Your task to perform on an android device: check storage Image 0: 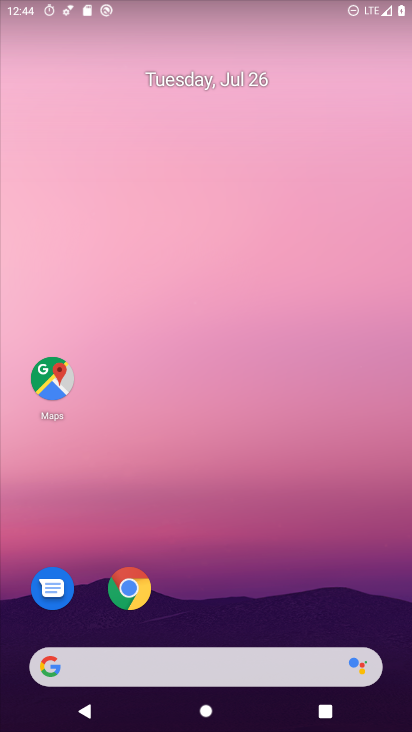
Step 0: drag from (229, 174) to (242, 72)
Your task to perform on an android device: check storage Image 1: 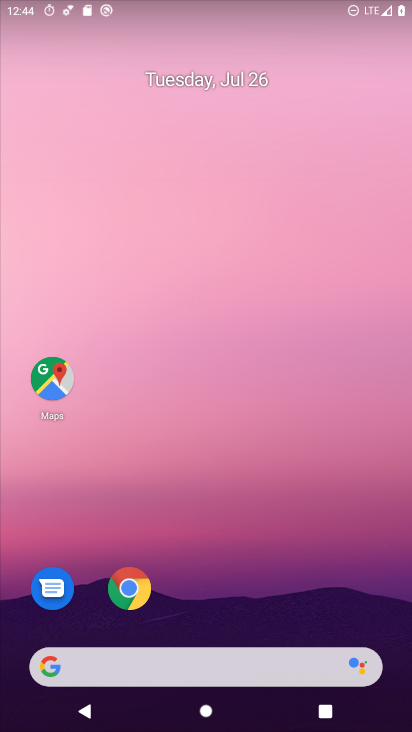
Step 1: drag from (230, 596) to (248, 136)
Your task to perform on an android device: check storage Image 2: 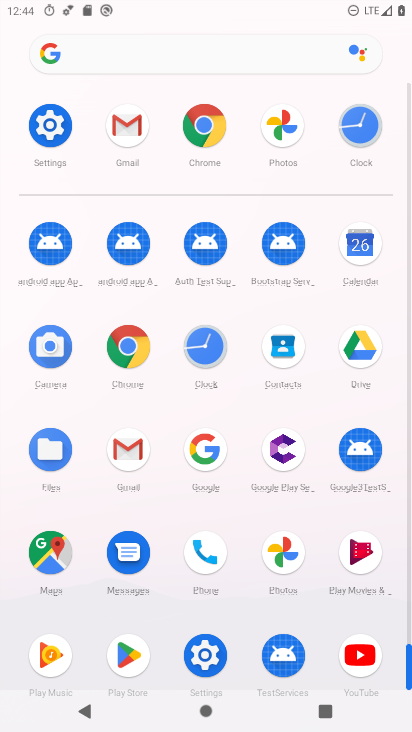
Step 2: click (206, 658)
Your task to perform on an android device: check storage Image 3: 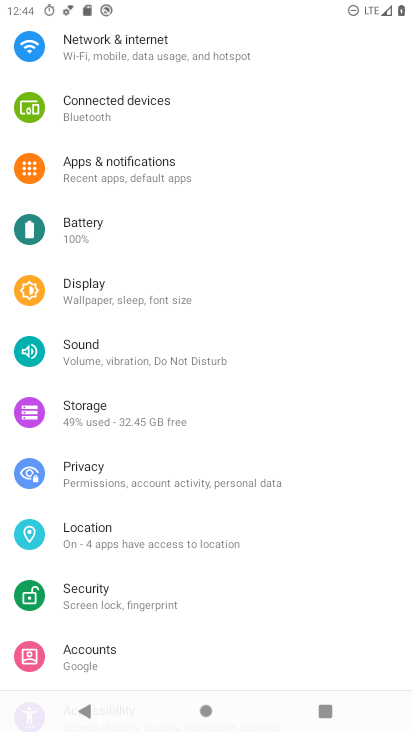
Step 3: click (148, 416)
Your task to perform on an android device: check storage Image 4: 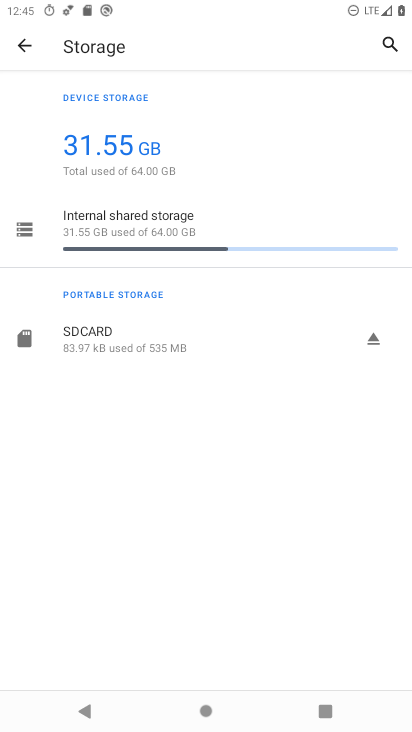
Step 4: task complete